Your task to perform on an android device: check out phone information Image 0: 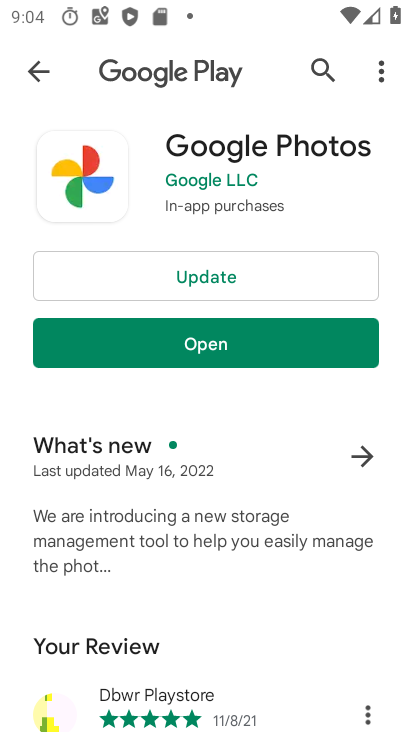
Step 0: press home button
Your task to perform on an android device: check out phone information Image 1: 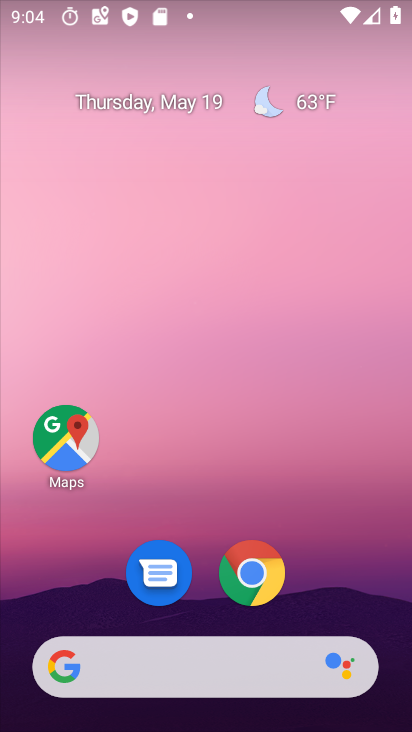
Step 1: drag from (327, 624) to (301, 1)
Your task to perform on an android device: check out phone information Image 2: 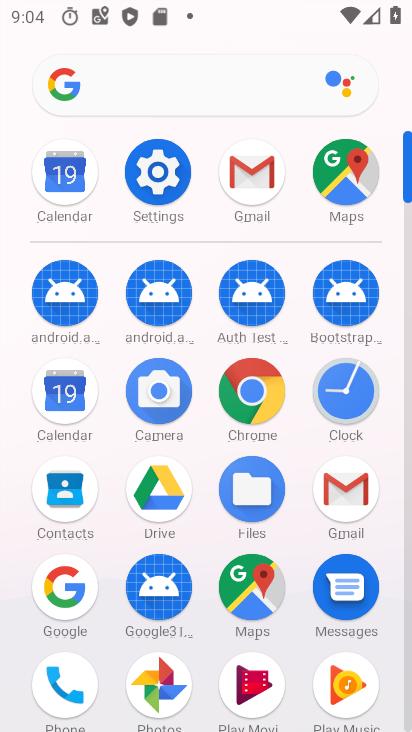
Step 2: click (162, 178)
Your task to perform on an android device: check out phone information Image 3: 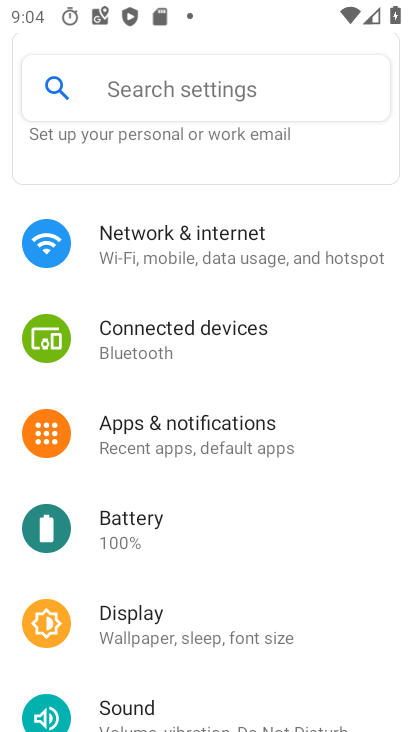
Step 3: drag from (371, 611) to (362, 189)
Your task to perform on an android device: check out phone information Image 4: 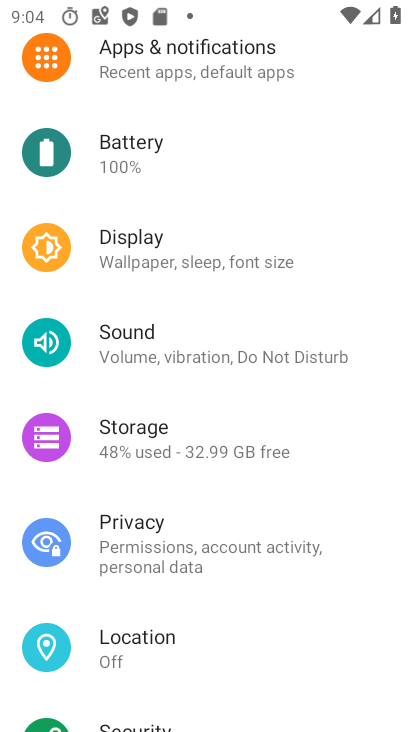
Step 4: drag from (303, 561) to (275, 88)
Your task to perform on an android device: check out phone information Image 5: 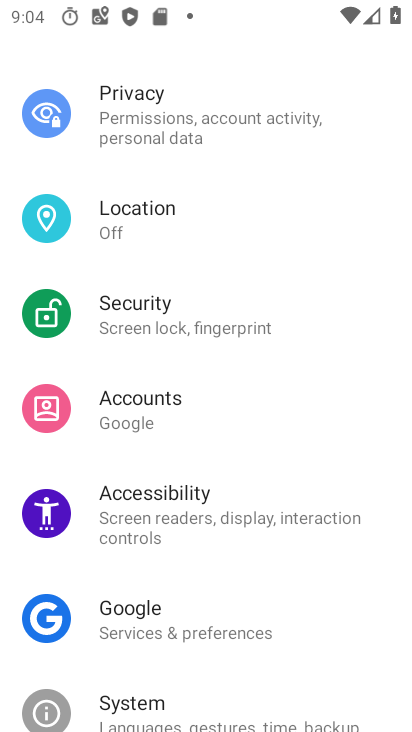
Step 5: drag from (252, 570) to (248, 92)
Your task to perform on an android device: check out phone information Image 6: 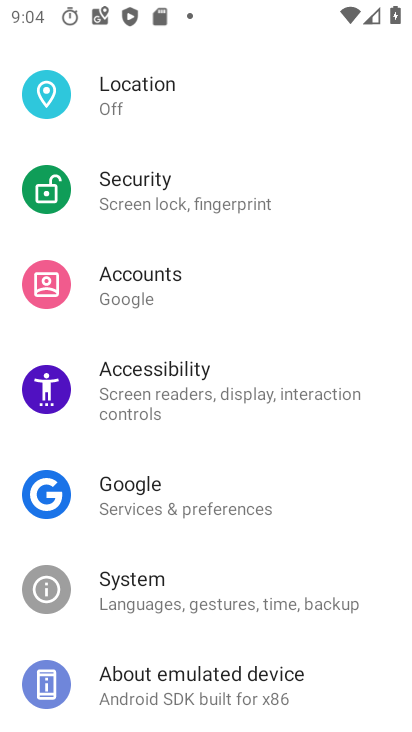
Step 6: click (217, 690)
Your task to perform on an android device: check out phone information Image 7: 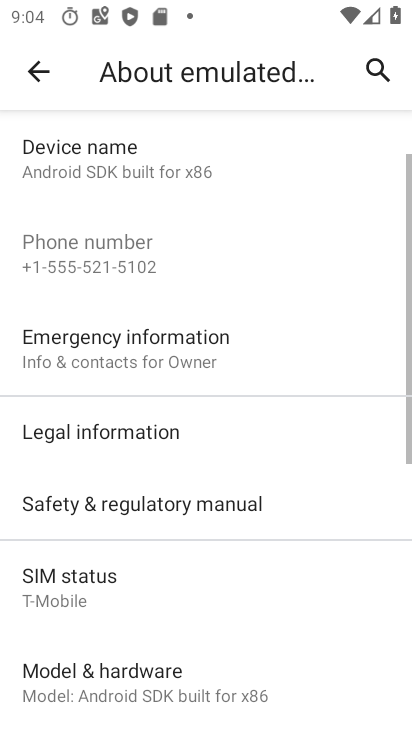
Step 7: task complete